Your task to perform on an android device: turn on the 12-hour format for clock Image 0: 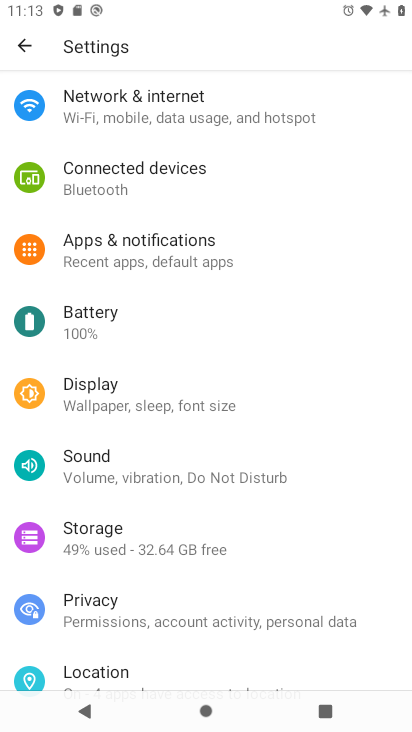
Step 0: press home button
Your task to perform on an android device: turn on the 12-hour format for clock Image 1: 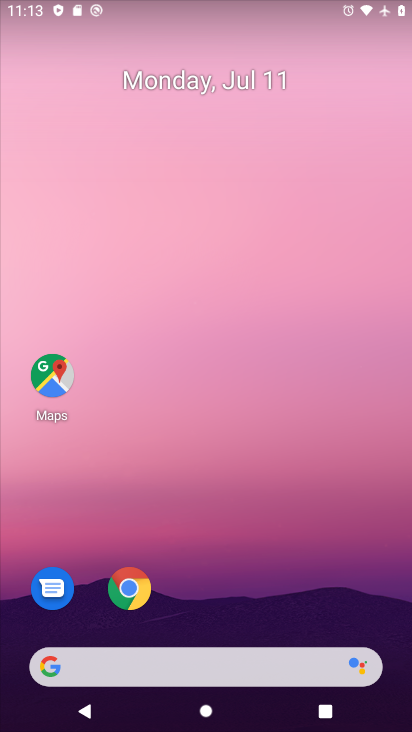
Step 1: drag from (197, 677) to (278, 114)
Your task to perform on an android device: turn on the 12-hour format for clock Image 2: 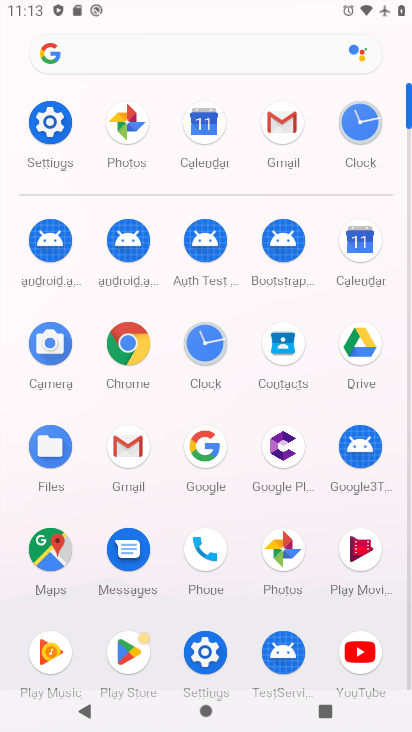
Step 2: click (355, 125)
Your task to perform on an android device: turn on the 12-hour format for clock Image 3: 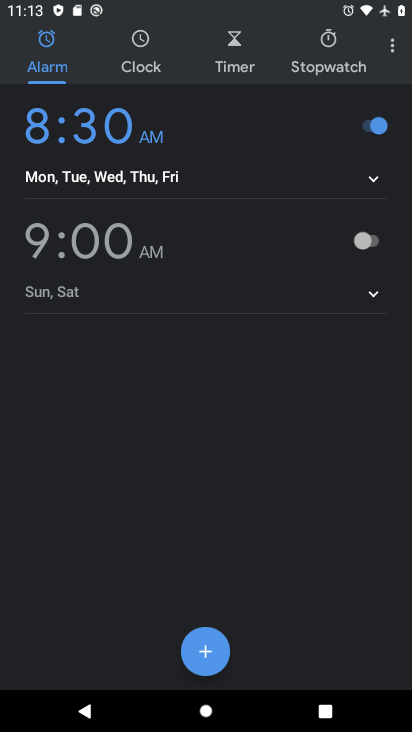
Step 3: click (393, 48)
Your task to perform on an android device: turn on the 12-hour format for clock Image 4: 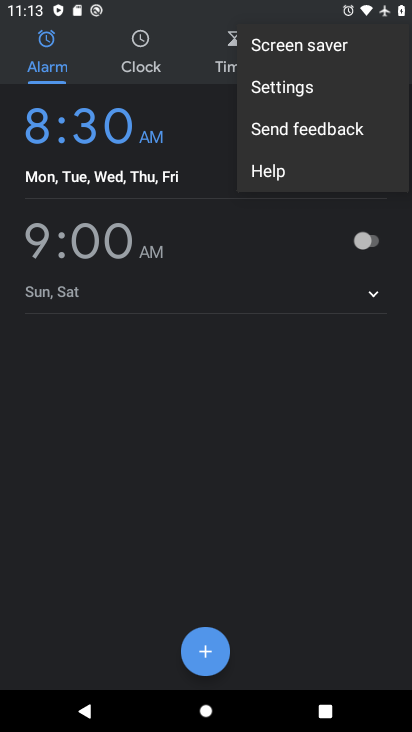
Step 4: click (304, 93)
Your task to perform on an android device: turn on the 12-hour format for clock Image 5: 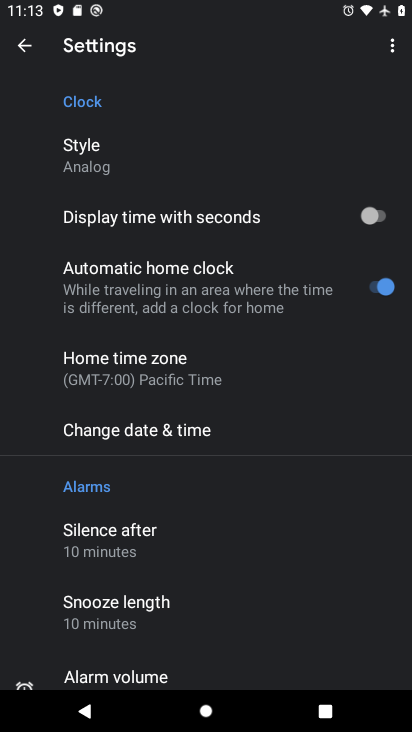
Step 5: click (135, 427)
Your task to perform on an android device: turn on the 12-hour format for clock Image 6: 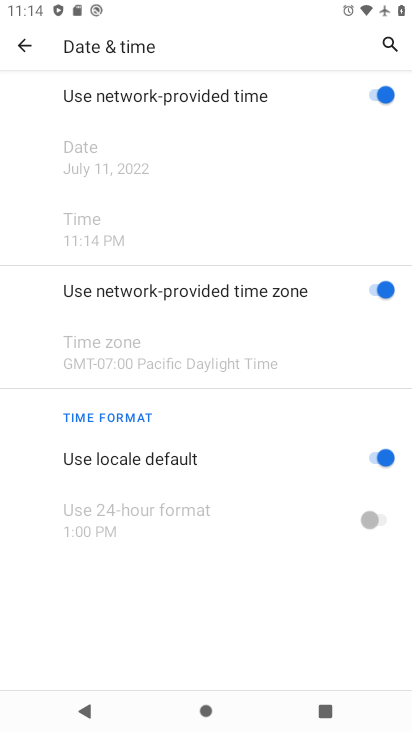
Step 6: task complete